Your task to perform on an android device: Google the capital of Mexico Image 0: 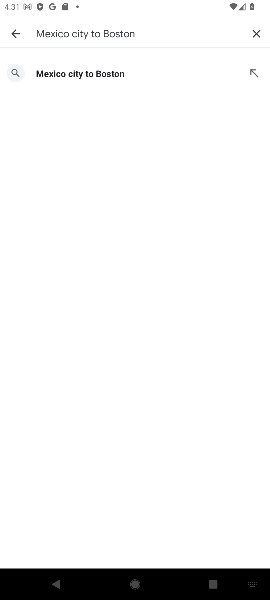
Step 0: click (125, 74)
Your task to perform on an android device: Google the capital of Mexico Image 1: 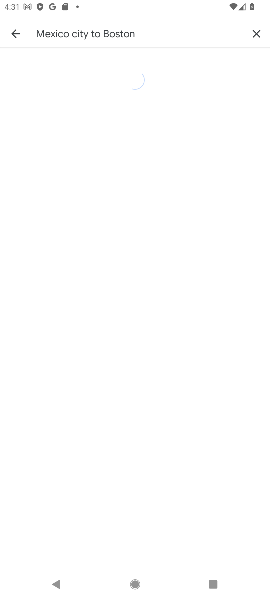
Step 1: task complete